Your task to perform on an android device: turn on translation in the chrome app Image 0: 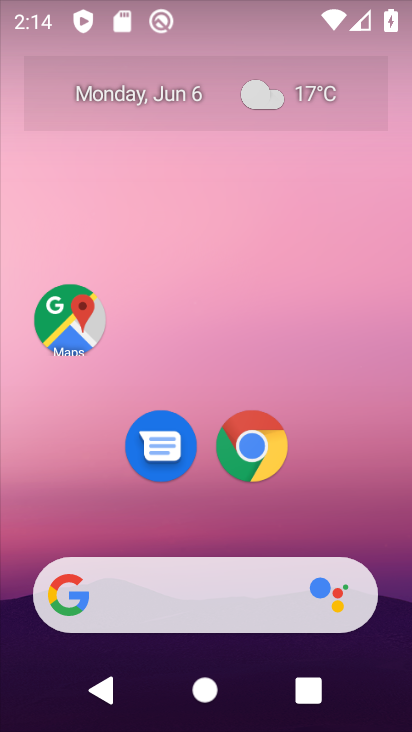
Step 0: click (253, 424)
Your task to perform on an android device: turn on translation in the chrome app Image 1: 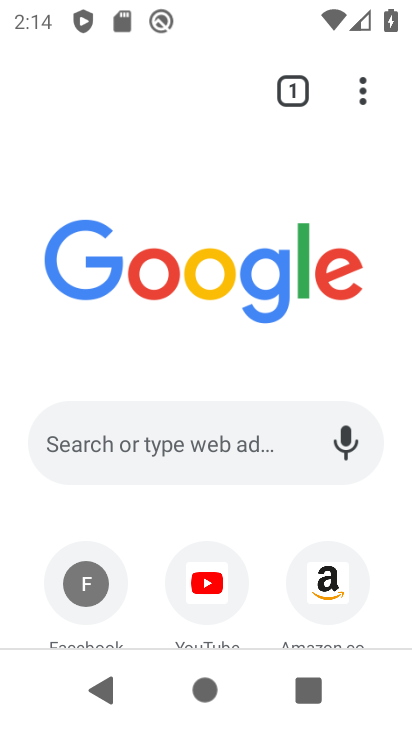
Step 1: click (364, 82)
Your task to perform on an android device: turn on translation in the chrome app Image 2: 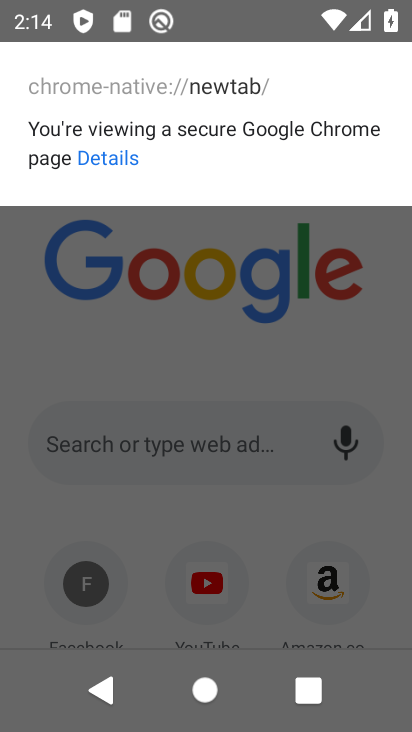
Step 2: click (241, 273)
Your task to perform on an android device: turn on translation in the chrome app Image 3: 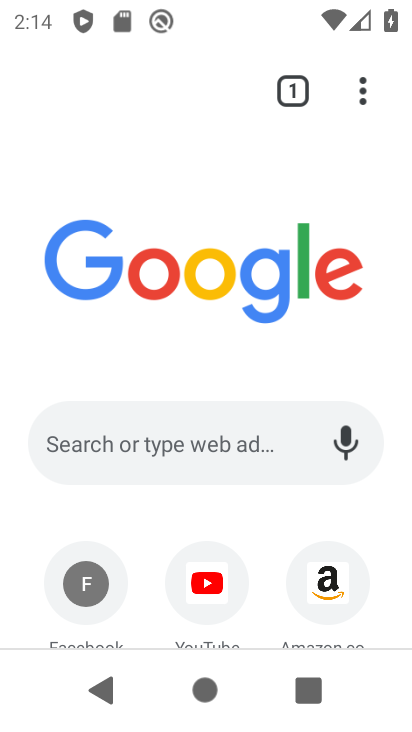
Step 3: drag from (364, 99) to (123, 464)
Your task to perform on an android device: turn on translation in the chrome app Image 4: 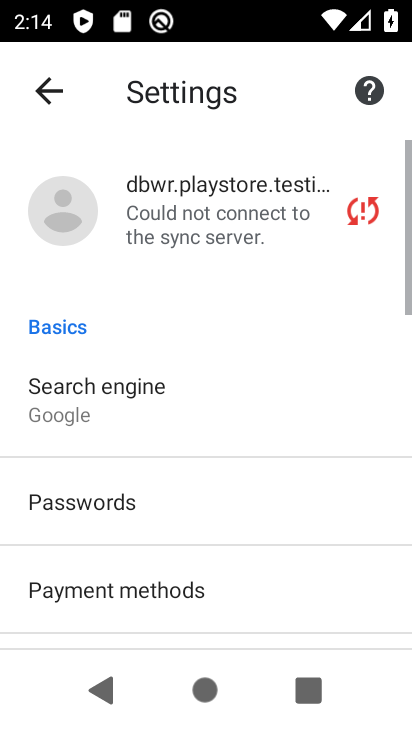
Step 4: drag from (123, 584) to (230, 136)
Your task to perform on an android device: turn on translation in the chrome app Image 5: 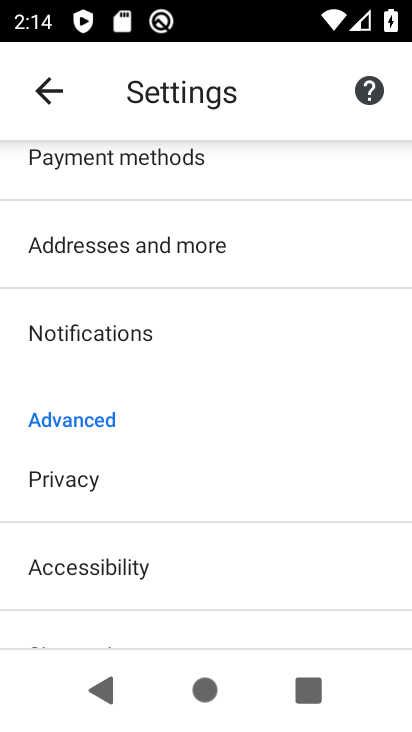
Step 5: drag from (150, 583) to (252, 127)
Your task to perform on an android device: turn on translation in the chrome app Image 6: 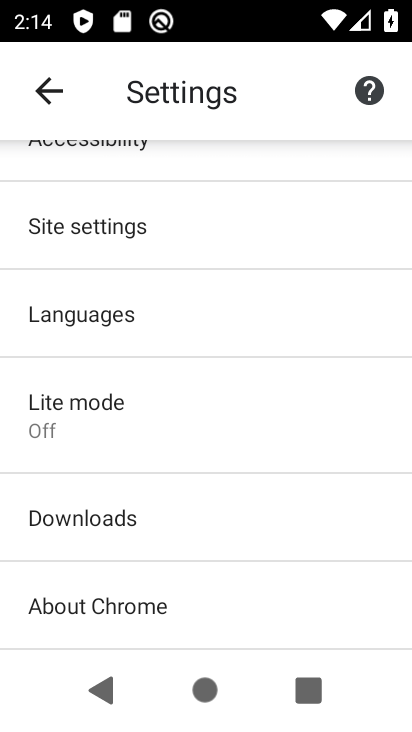
Step 6: click (101, 316)
Your task to perform on an android device: turn on translation in the chrome app Image 7: 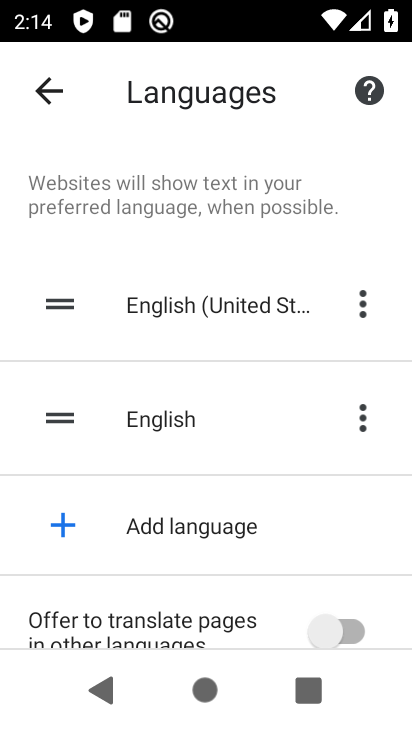
Step 7: click (328, 614)
Your task to perform on an android device: turn on translation in the chrome app Image 8: 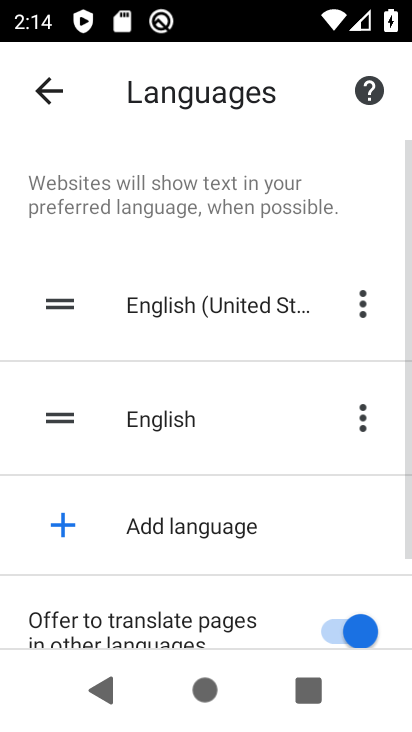
Step 8: task complete